Your task to perform on an android device: move an email to a new category in the gmail app Image 0: 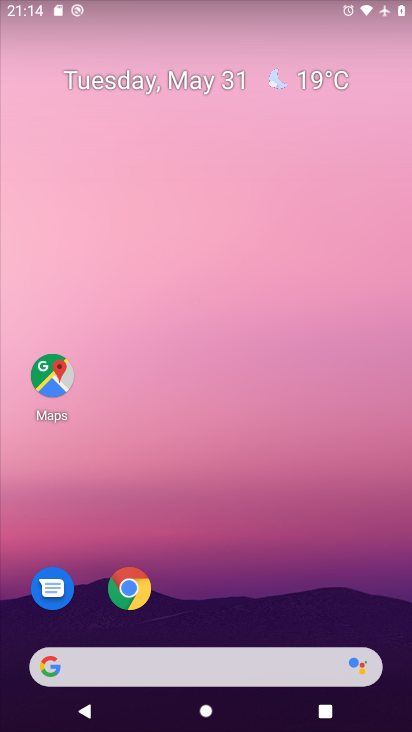
Step 0: press home button
Your task to perform on an android device: move an email to a new category in the gmail app Image 1: 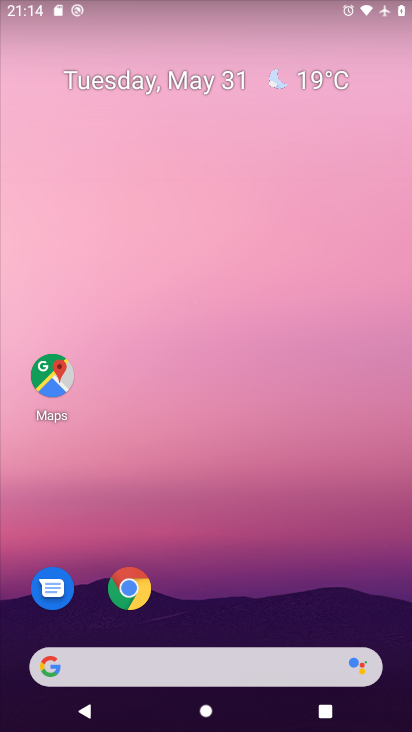
Step 1: drag from (183, 670) to (236, 120)
Your task to perform on an android device: move an email to a new category in the gmail app Image 2: 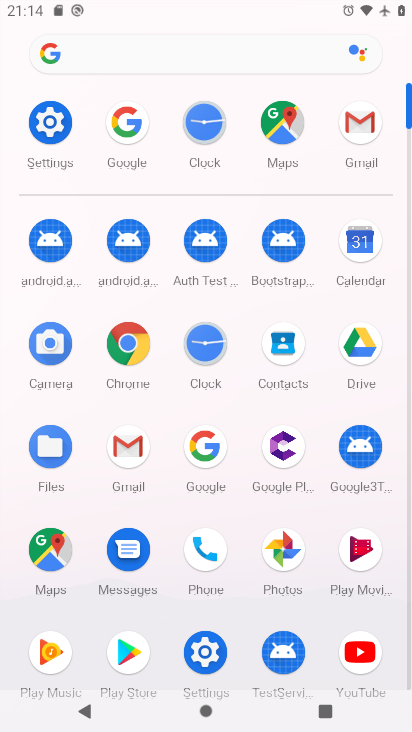
Step 2: click (358, 118)
Your task to perform on an android device: move an email to a new category in the gmail app Image 3: 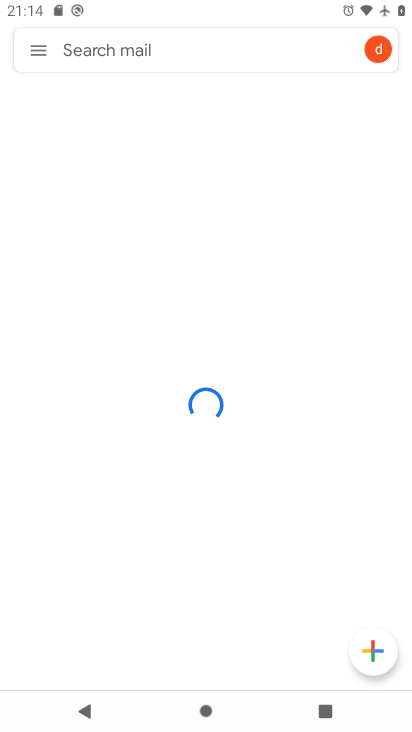
Step 3: drag from (196, 280) to (133, 509)
Your task to perform on an android device: move an email to a new category in the gmail app Image 4: 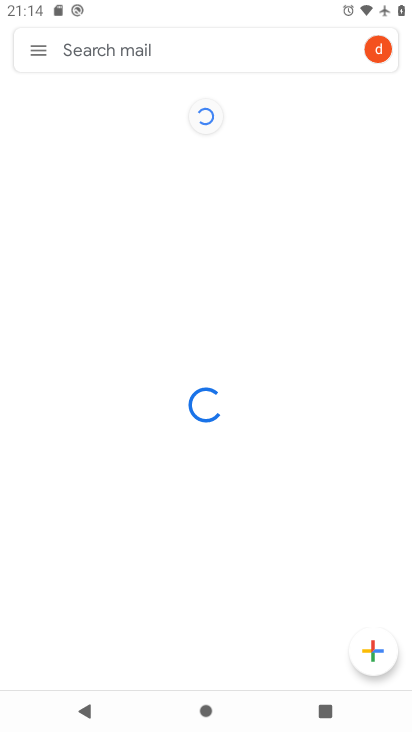
Step 4: press home button
Your task to perform on an android device: move an email to a new category in the gmail app Image 5: 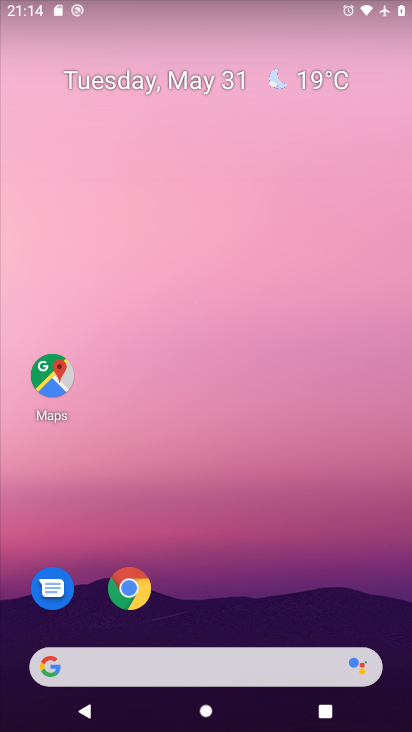
Step 5: drag from (152, 661) to (318, 55)
Your task to perform on an android device: move an email to a new category in the gmail app Image 6: 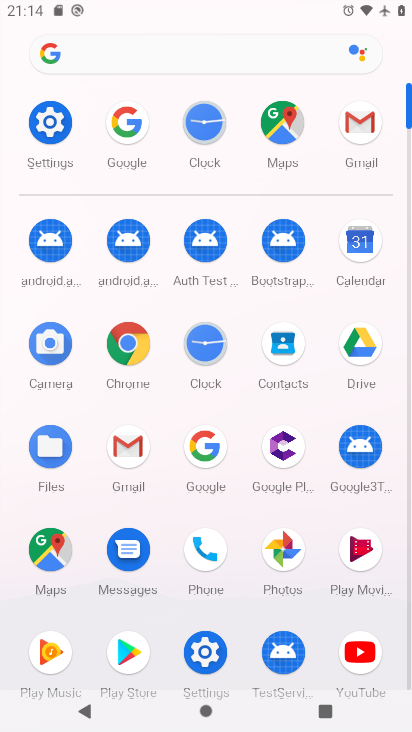
Step 6: click (354, 133)
Your task to perform on an android device: move an email to a new category in the gmail app Image 7: 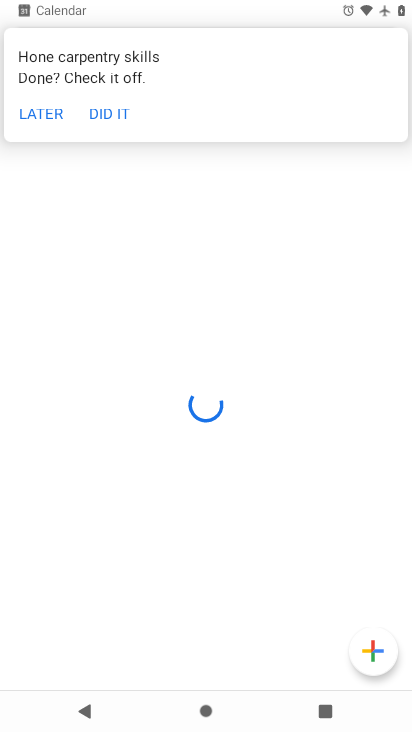
Step 7: task complete